Your task to perform on an android device: Go to Yahoo.com Image 0: 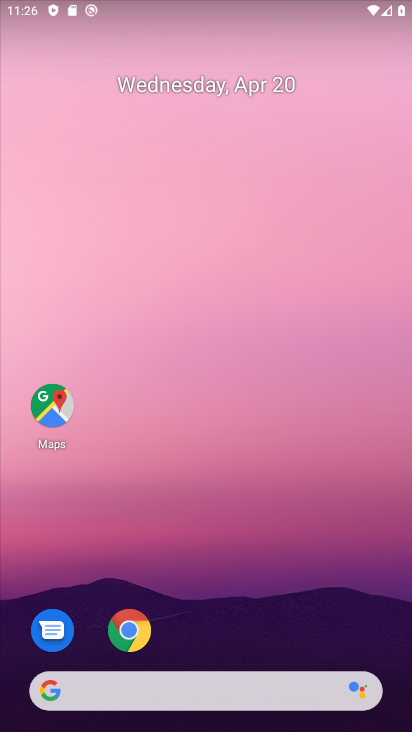
Step 0: click (129, 641)
Your task to perform on an android device: Go to Yahoo.com Image 1: 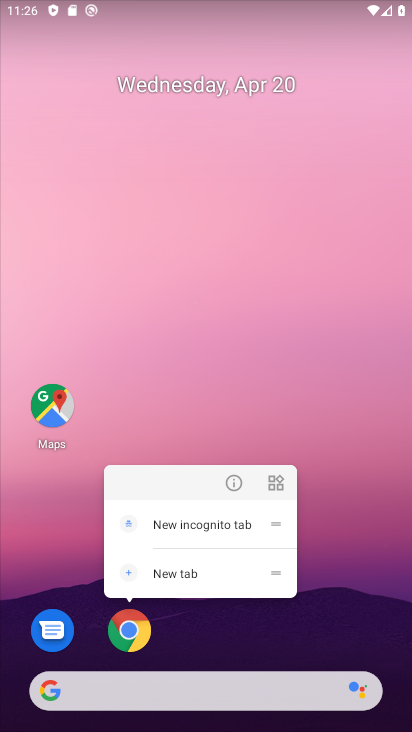
Step 1: click (129, 633)
Your task to perform on an android device: Go to Yahoo.com Image 2: 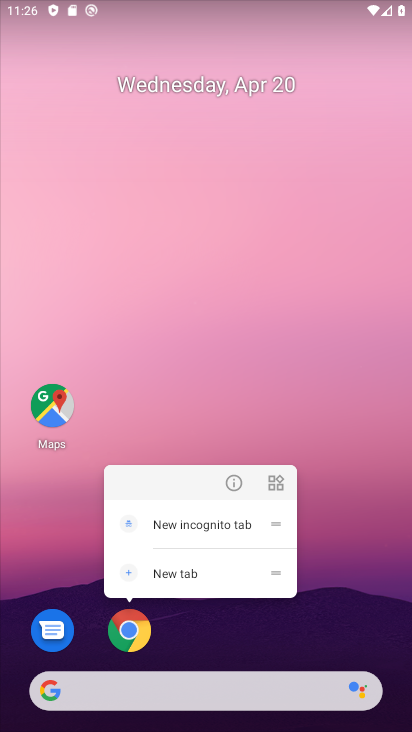
Step 2: click (123, 624)
Your task to perform on an android device: Go to Yahoo.com Image 3: 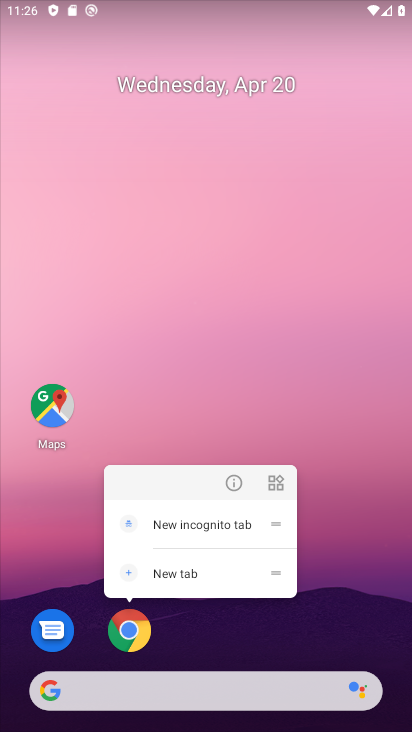
Step 3: click (140, 615)
Your task to perform on an android device: Go to Yahoo.com Image 4: 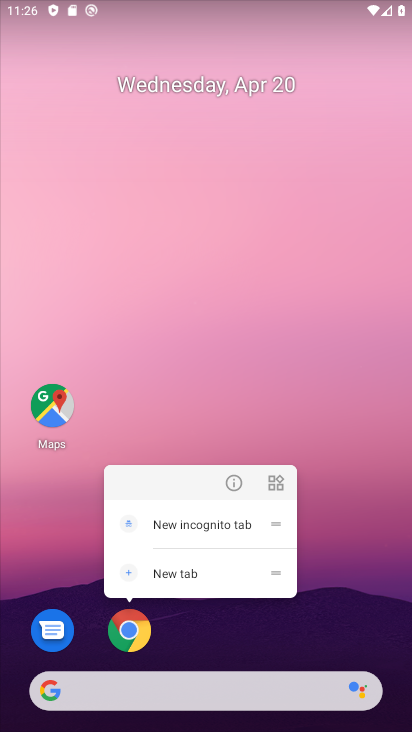
Step 4: click (140, 644)
Your task to perform on an android device: Go to Yahoo.com Image 5: 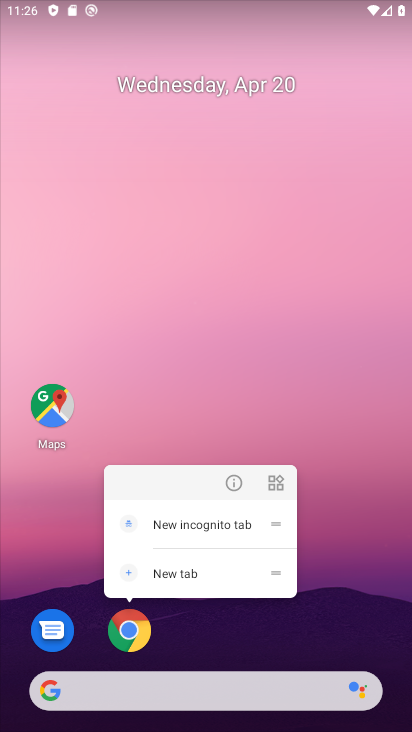
Step 5: click (131, 646)
Your task to perform on an android device: Go to Yahoo.com Image 6: 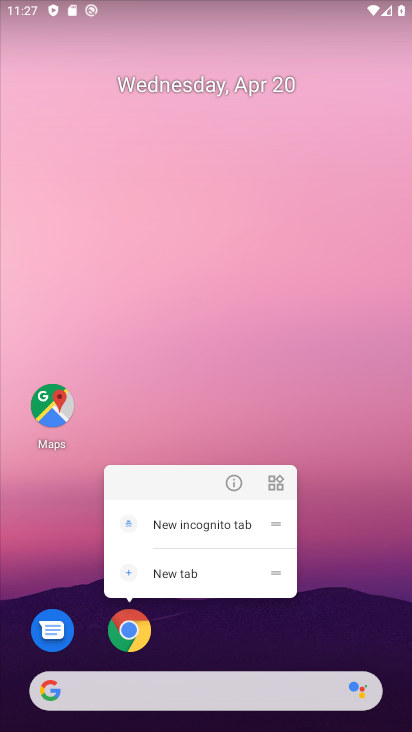
Step 6: click (131, 635)
Your task to perform on an android device: Go to Yahoo.com Image 7: 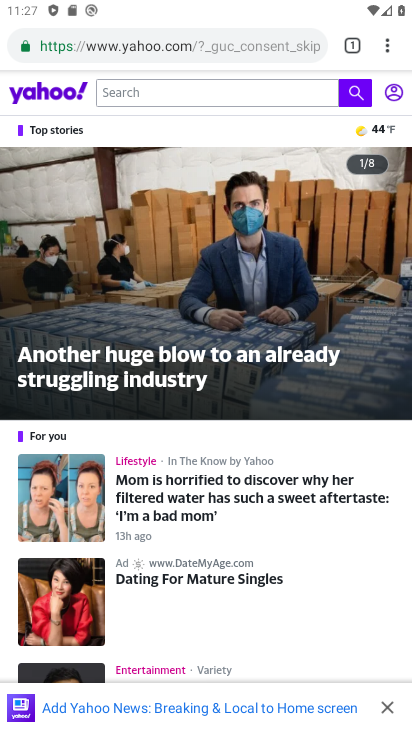
Step 7: task complete